Your task to perform on an android device: Open Google Image 0: 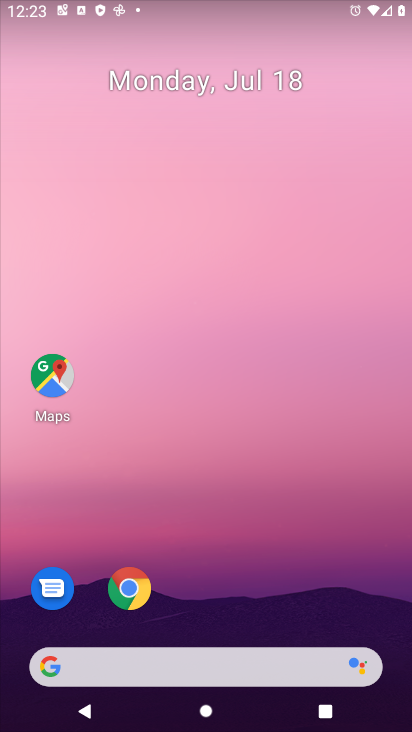
Step 0: drag from (219, 585) to (235, 79)
Your task to perform on an android device: Open Google Image 1: 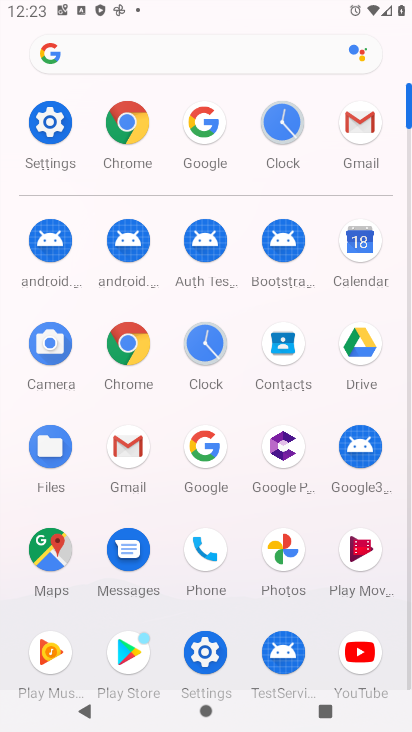
Step 1: drag from (174, 508) to (222, 185)
Your task to perform on an android device: Open Google Image 2: 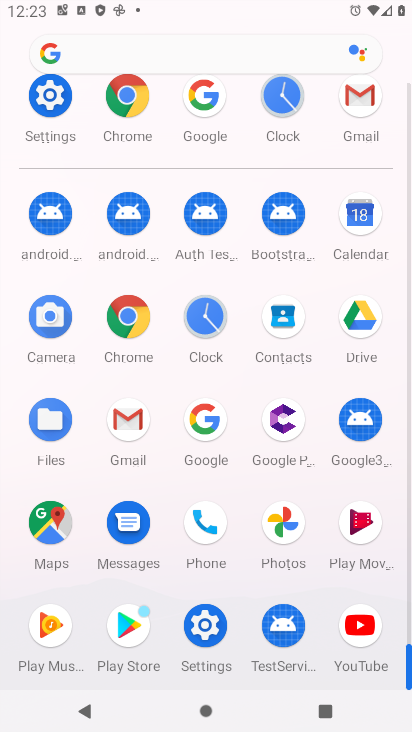
Step 2: click (210, 444)
Your task to perform on an android device: Open Google Image 3: 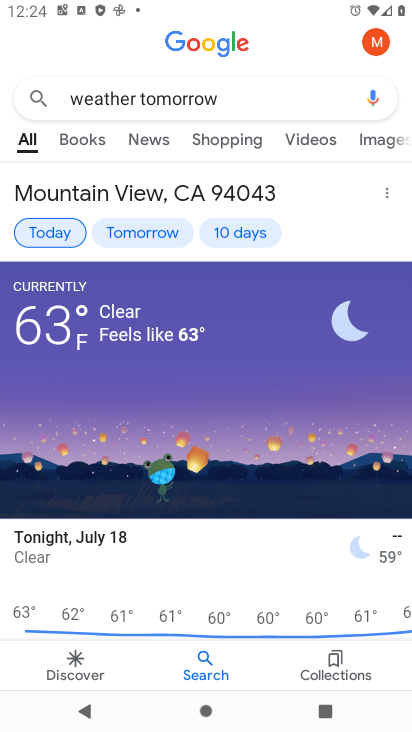
Step 3: task complete